Your task to perform on an android device: How big is the earth? Image 0: 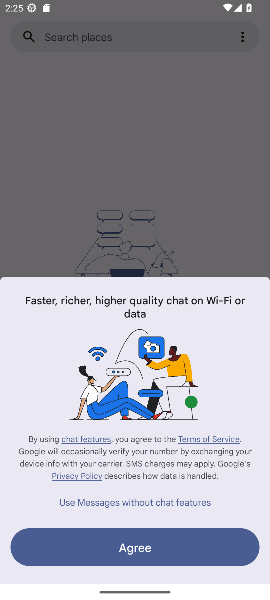
Step 0: press home button
Your task to perform on an android device: How big is the earth? Image 1: 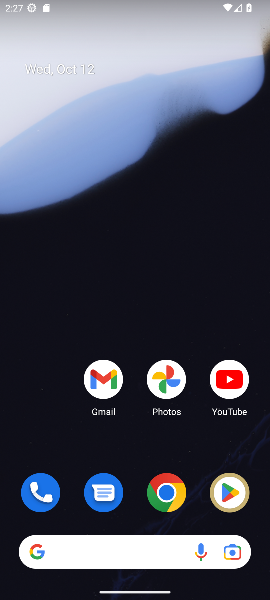
Step 1: click (169, 492)
Your task to perform on an android device: How big is the earth? Image 2: 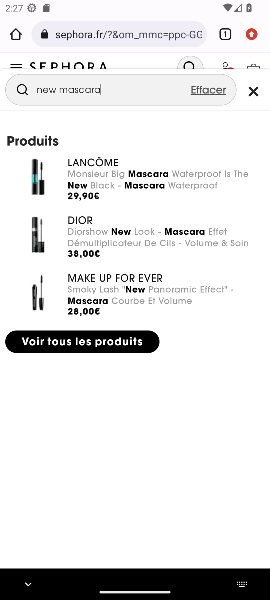
Step 2: click (100, 36)
Your task to perform on an android device: How big is the earth? Image 3: 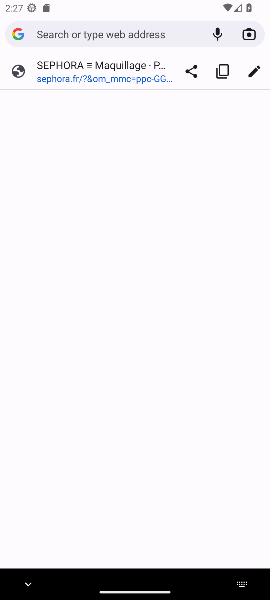
Step 3: type "How big is the earth?"
Your task to perform on an android device: How big is the earth? Image 4: 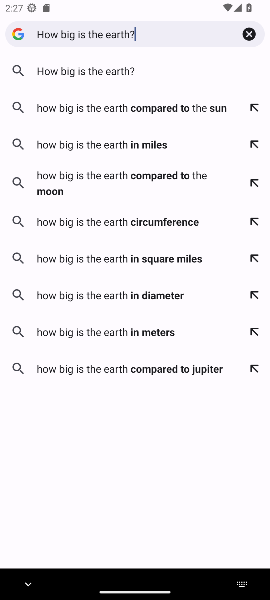
Step 4: click (76, 78)
Your task to perform on an android device: How big is the earth? Image 5: 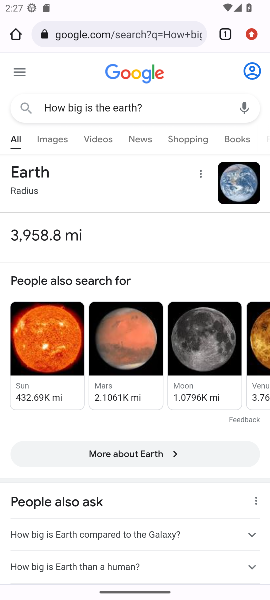
Step 5: task complete